Your task to perform on an android device: Go to notification settings Image 0: 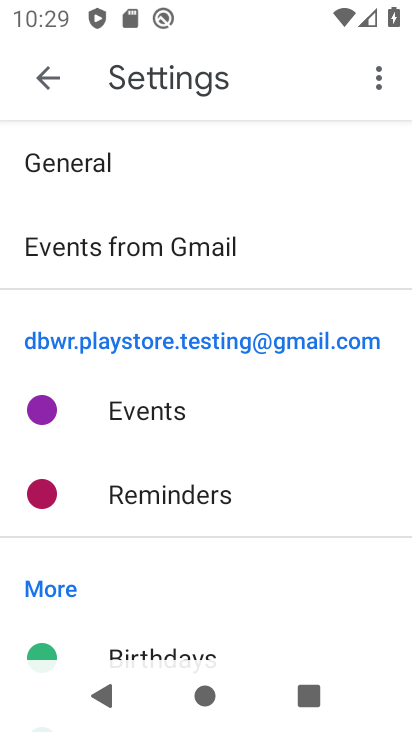
Step 0: press home button
Your task to perform on an android device: Go to notification settings Image 1: 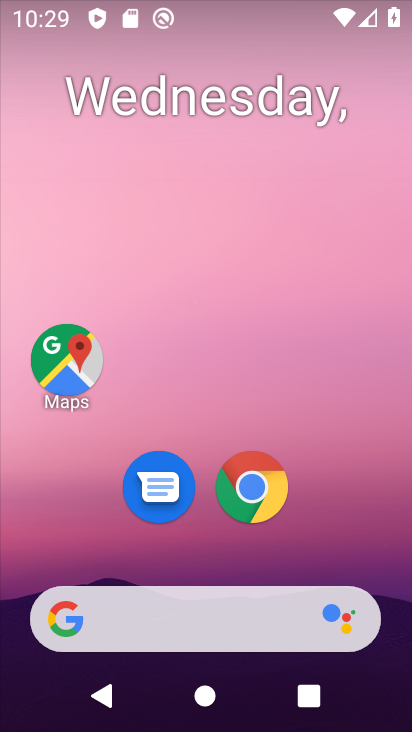
Step 1: drag from (325, 527) to (323, 156)
Your task to perform on an android device: Go to notification settings Image 2: 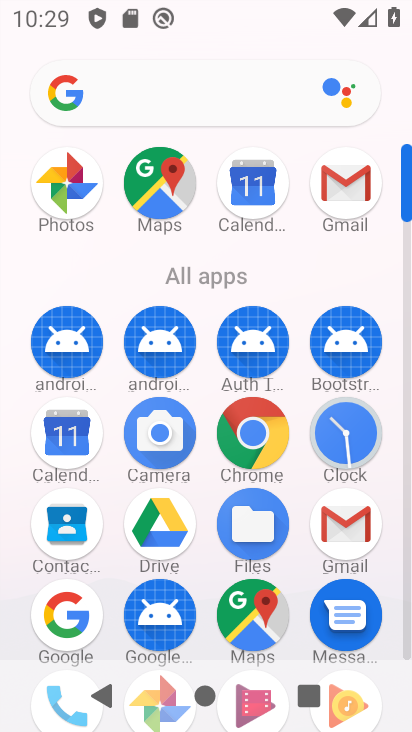
Step 2: drag from (208, 641) to (230, 161)
Your task to perform on an android device: Go to notification settings Image 3: 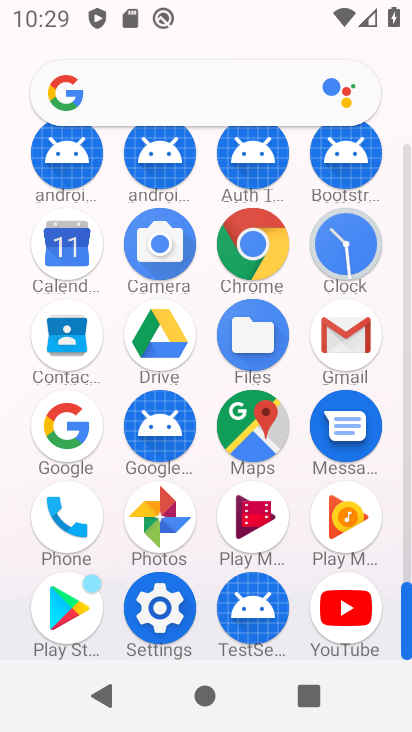
Step 3: click (165, 600)
Your task to perform on an android device: Go to notification settings Image 4: 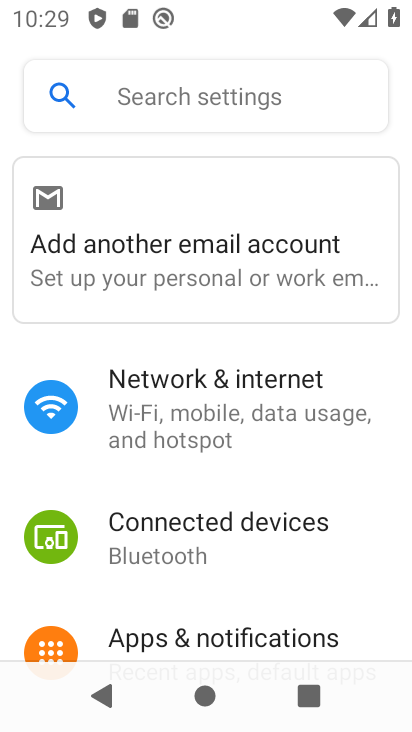
Step 4: drag from (287, 573) to (281, 319)
Your task to perform on an android device: Go to notification settings Image 5: 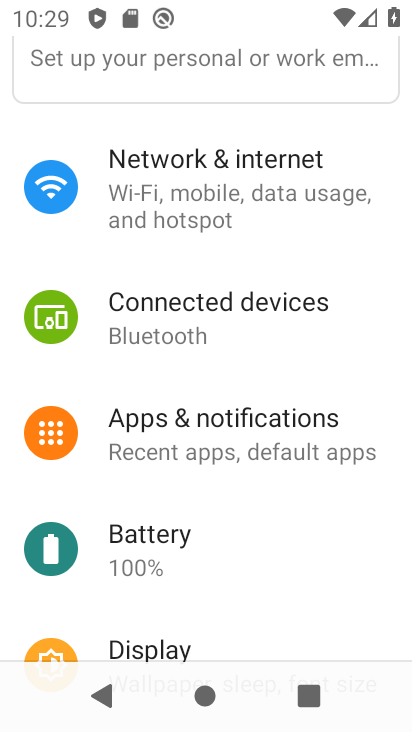
Step 5: click (272, 428)
Your task to perform on an android device: Go to notification settings Image 6: 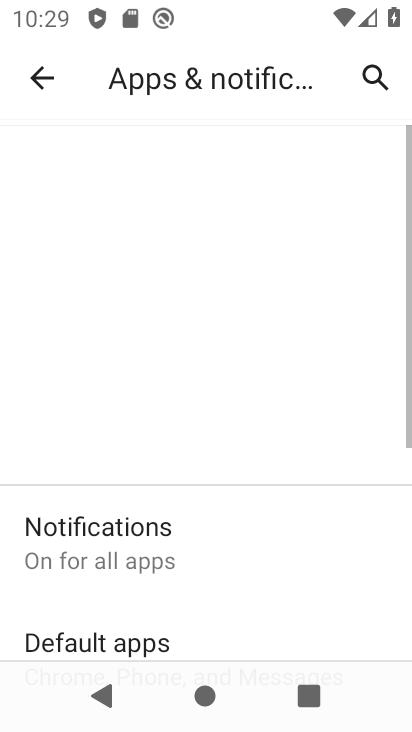
Step 6: drag from (254, 558) to (259, 364)
Your task to perform on an android device: Go to notification settings Image 7: 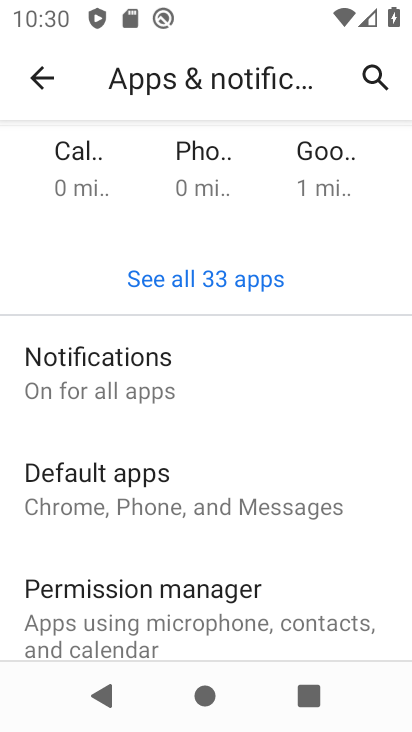
Step 7: click (119, 362)
Your task to perform on an android device: Go to notification settings Image 8: 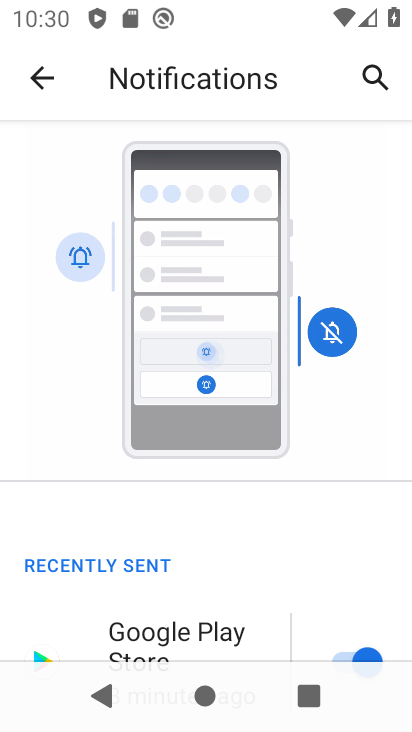
Step 8: task complete